Your task to perform on an android device: turn smart compose on in the gmail app Image 0: 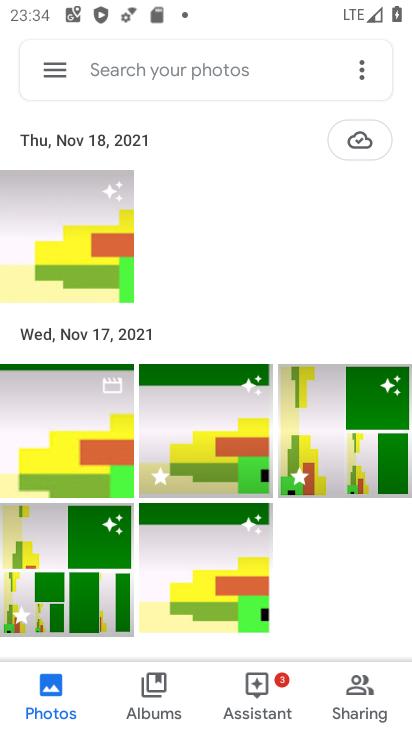
Step 0: press home button
Your task to perform on an android device: turn smart compose on in the gmail app Image 1: 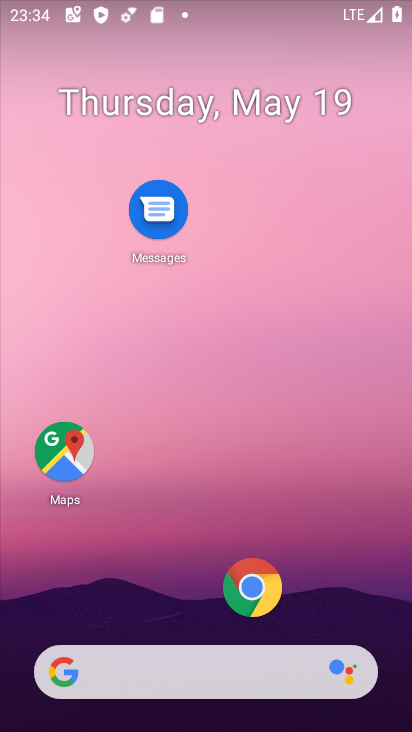
Step 1: drag from (112, 603) to (192, 134)
Your task to perform on an android device: turn smart compose on in the gmail app Image 2: 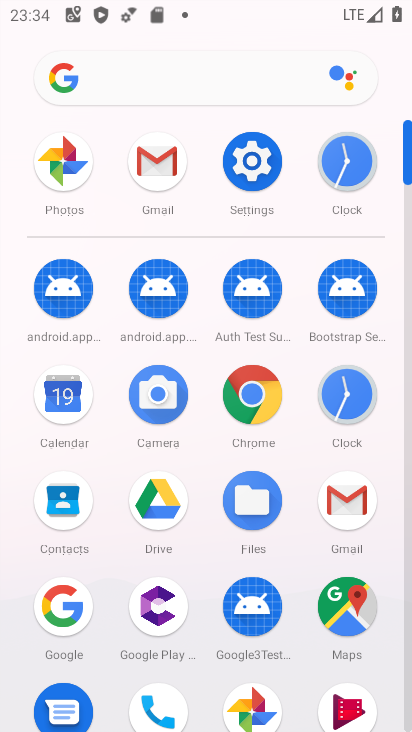
Step 2: click (150, 159)
Your task to perform on an android device: turn smart compose on in the gmail app Image 3: 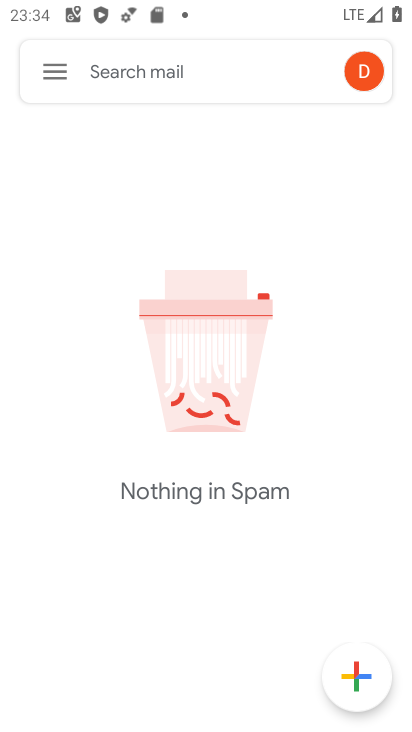
Step 3: click (47, 72)
Your task to perform on an android device: turn smart compose on in the gmail app Image 4: 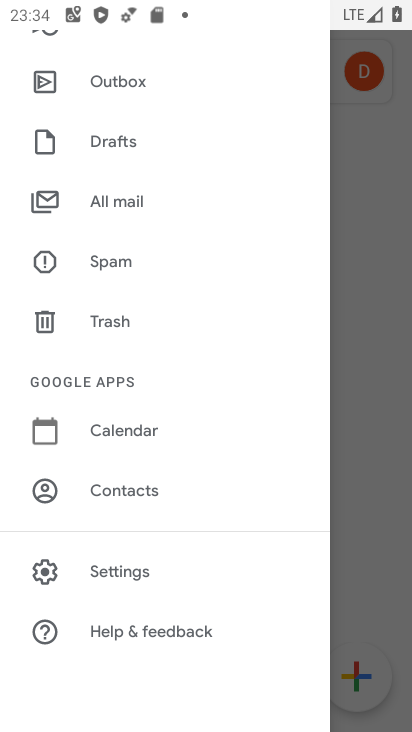
Step 4: click (110, 577)
Your task to perform on an android device: turn smart compose on in the gmail app Image 5: 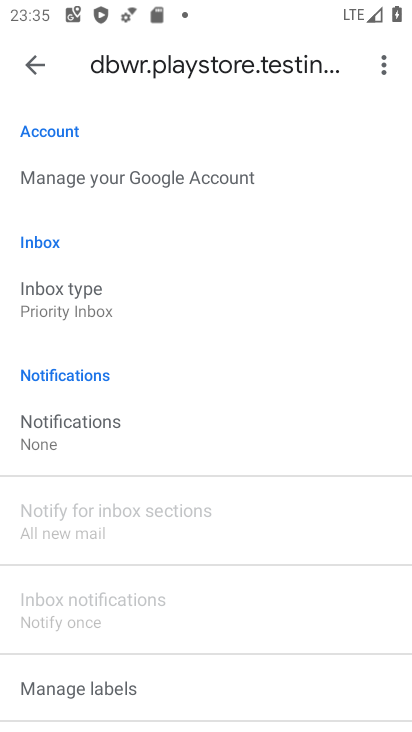
Step 5: task complete